Your task to perform on an android device: Set the phone to "Do not disturb". Image 0: 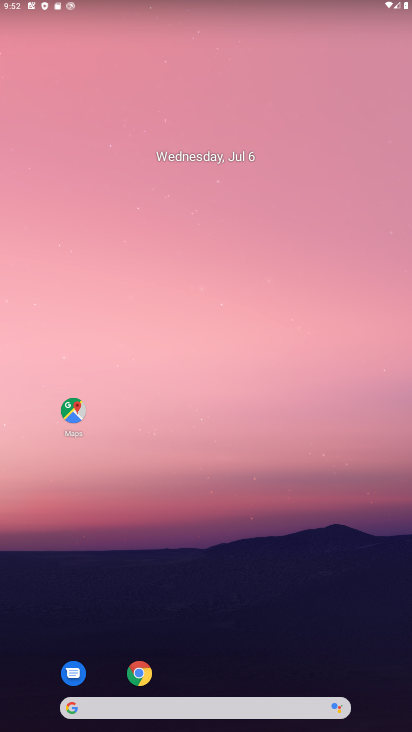
Step 0: drag from (175, 4) to (233, 207)
Your task to perform on an android device: Set the phone to "Do not disturb". Image 1: 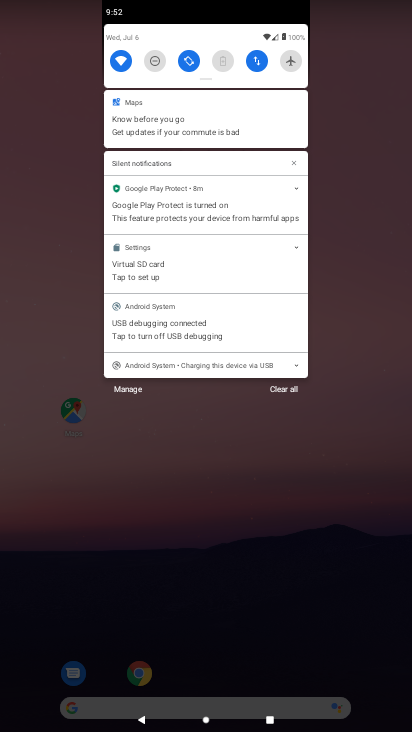
Step 1: click (161, 63)
Your task to perform on an android device: Set the phone to "Do not disturb". Image 2: 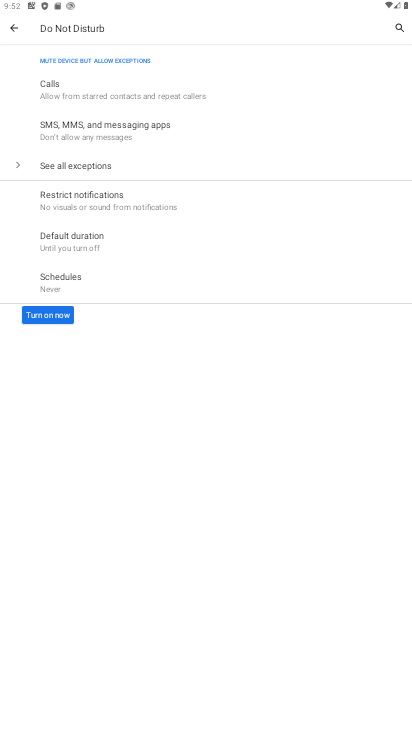
Step 2: click (47, 313)
Your task to perform on an android device: Set the phone to "Do not disturb". Image 3: 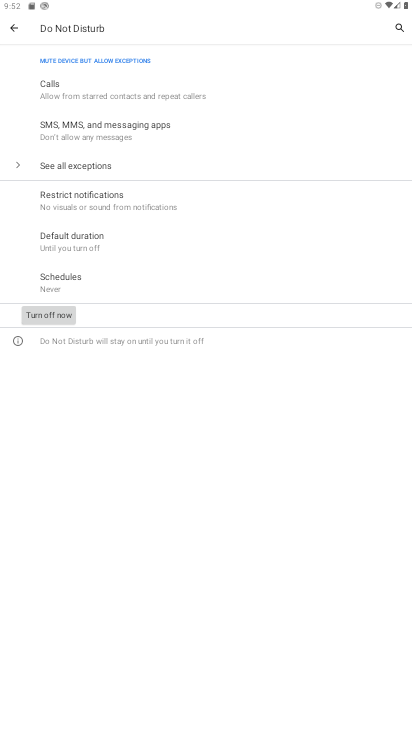
Step 3: task complete